Your task to perform on an android device: Go to settings Image 0: 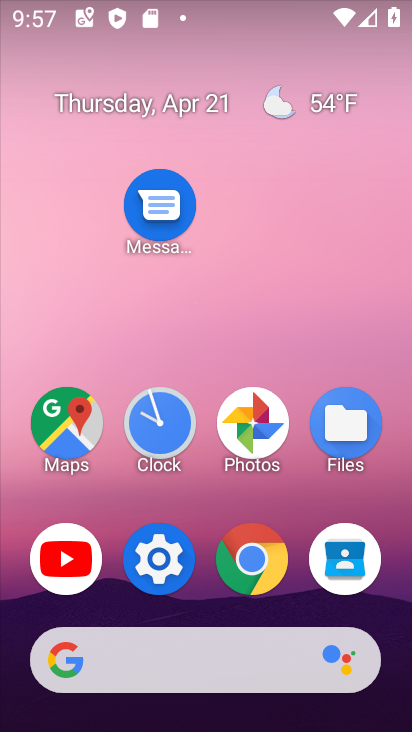
Step 0: click (161, 560)
Your task to perform on an android device: Go to settings Image 1: 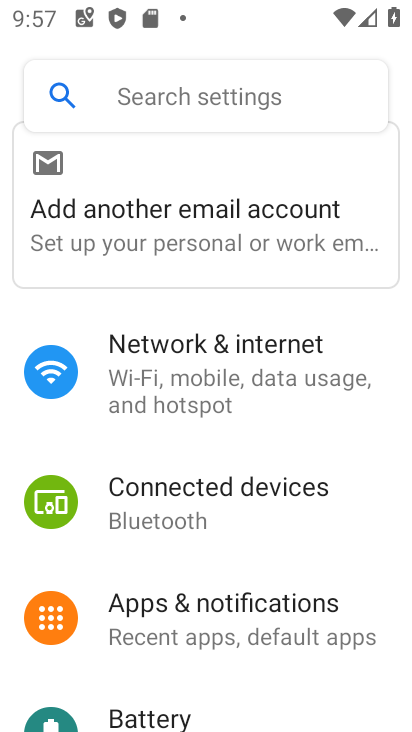
Step 1: task complete